Your task to perform on an android device: change text size in settings app Image 0: 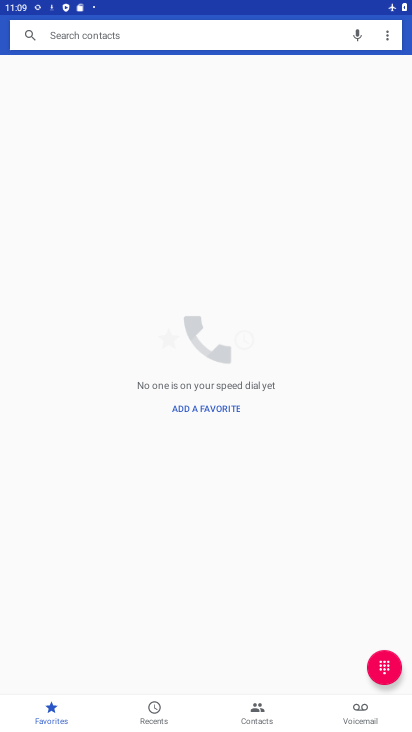
Step 0: press home button
Your task to perform on an android device: change text size in settings app Image 1: 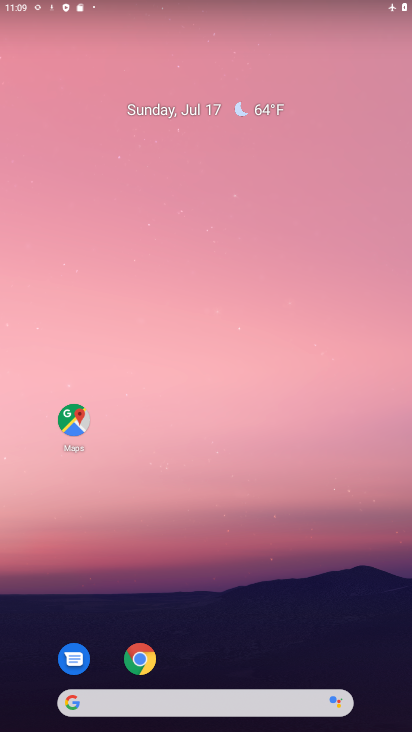
Step 1: drag from (361, 588) to (362, 239)
Your task to perform on an android device: change text size in settings app Image 2: 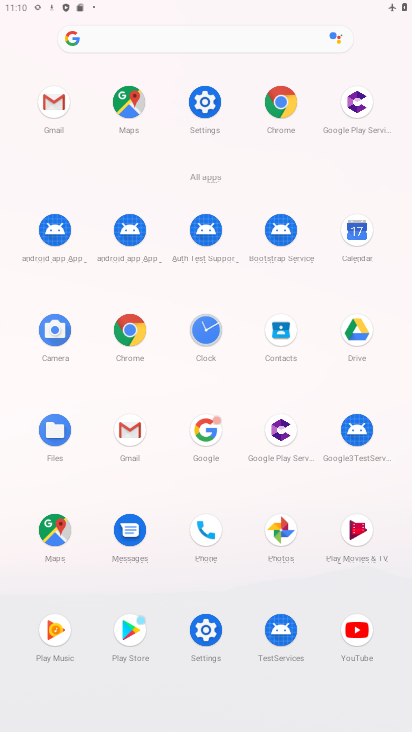
Step 2: click (208, 110)
Your task to perform on an android device: change text size in settings app Image 3: 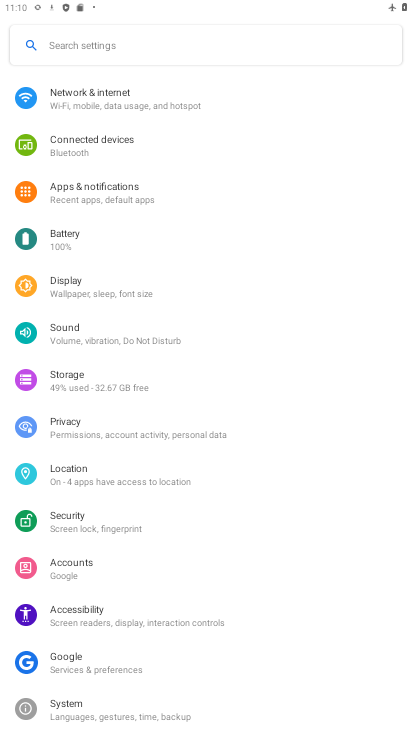
Step 3: drag from (317, 455) to (322, 365)
Your task to perform on an android device: change text size in settings app Image 4: 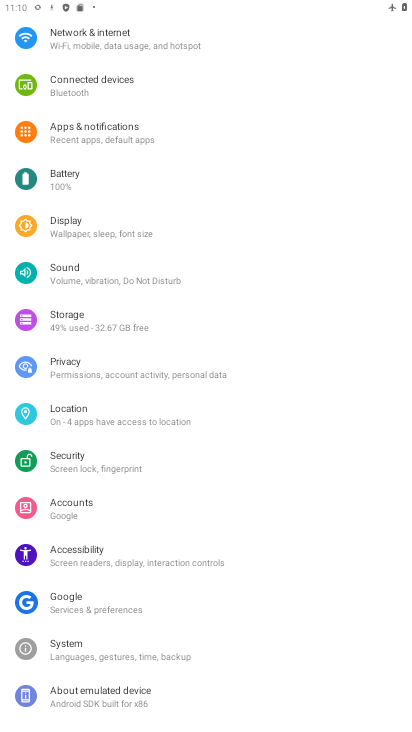
Step 4: drag from (332, 558) to (334, 366)
Your task to perform on an android device: change text size in settings app Image 5: 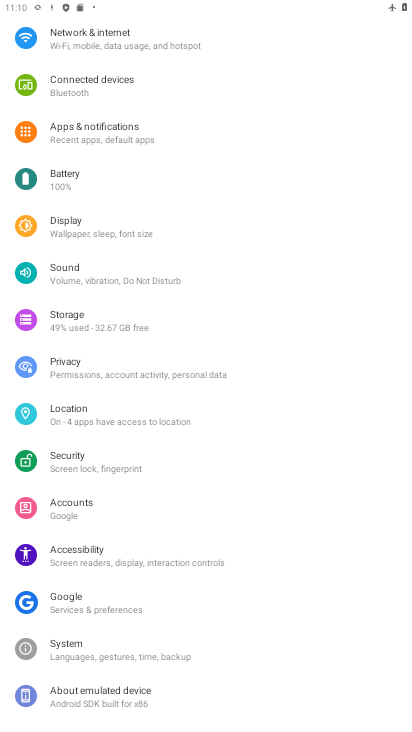
Step 5: drag from (330, 220) to (361, 377)
Your task to perform on an android device: change text size in settings app Image 6: 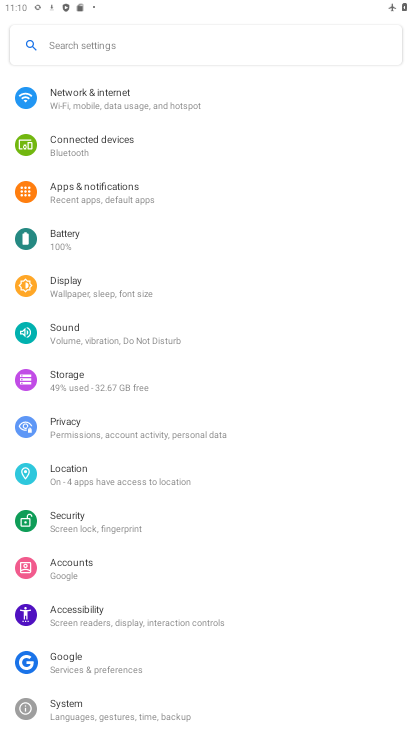
Step 6: click (108, 287)
Your task to perform on an android device: change text size in settings app Image 7: 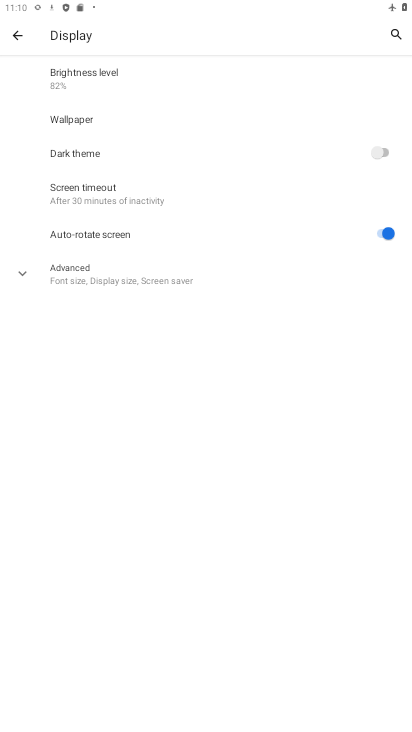
Step 7: click (111, 282)
Your task to perform on an android device: change text size in settings app Image 8: 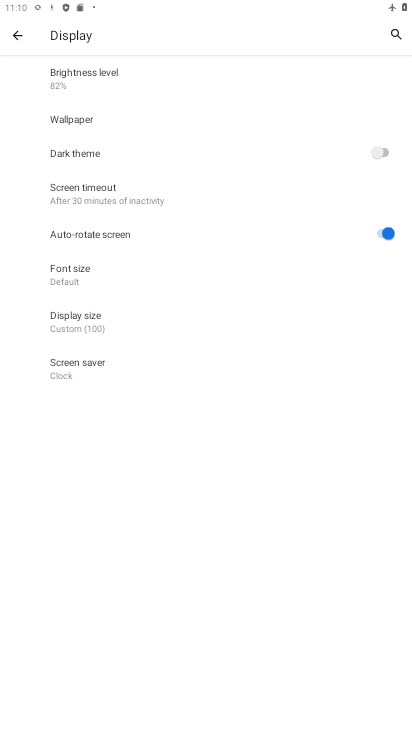
Step 8: click (75, 277)
Your task to perform on an android device: change text size in settings app Image 9: 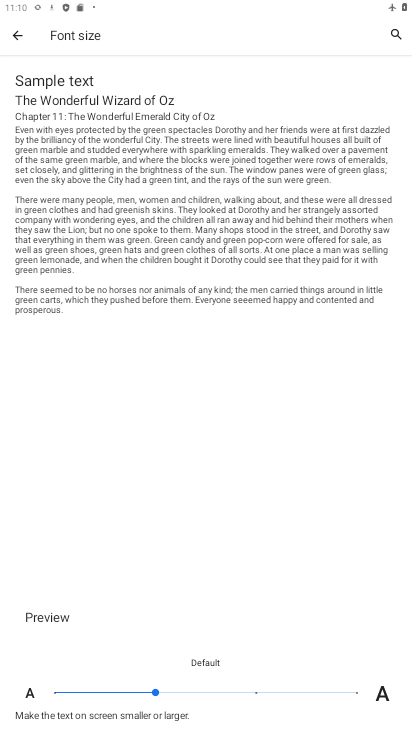
Step 9: click (252, 690)
Your task to perform on an android device: change text size in settings app Image 10: 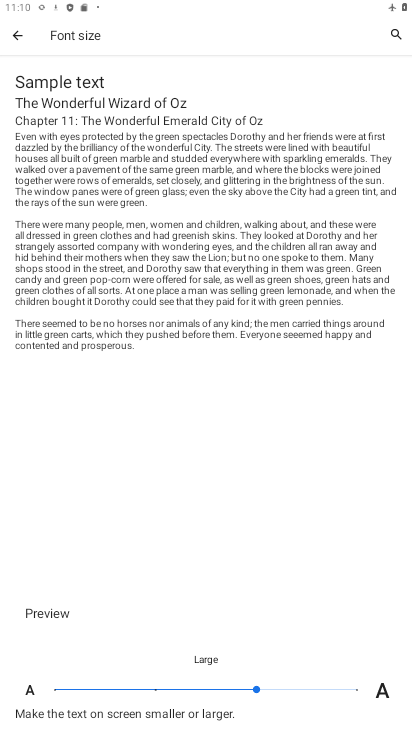
Step 10: click (358, 691)
Your task to perform on an android device: change text size in settings app Image 11: 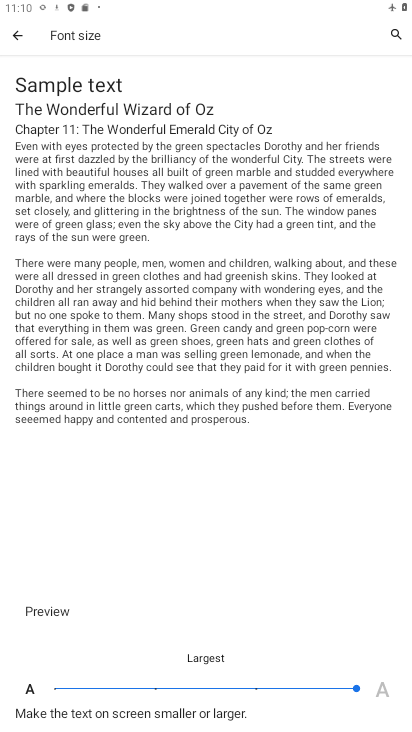
Step 11: task complete